Your task to perform on an android device: Open Yahoo.com Image 0: 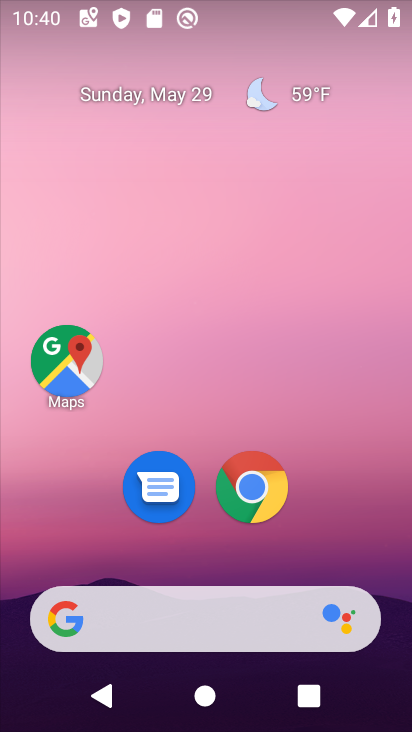
Step 0: click (245, 481)
Your task to perform on an android device: Open Yahoo.com Image 1: 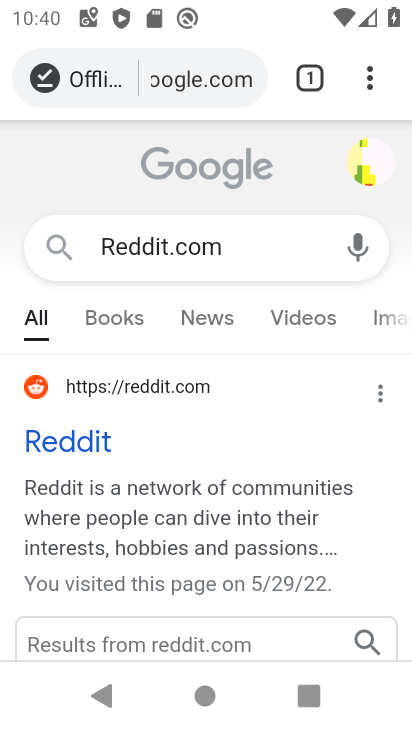
Step 1: click (256, 77)
Your task to perform on an android device: Open Yahoo.com Image 2: 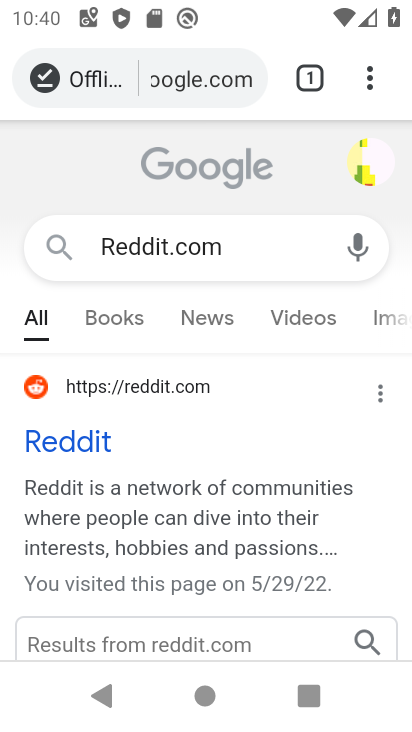
Step 2: click (252, 81)
Your task to perform on an android device: Open Yahoo.com Image 3: 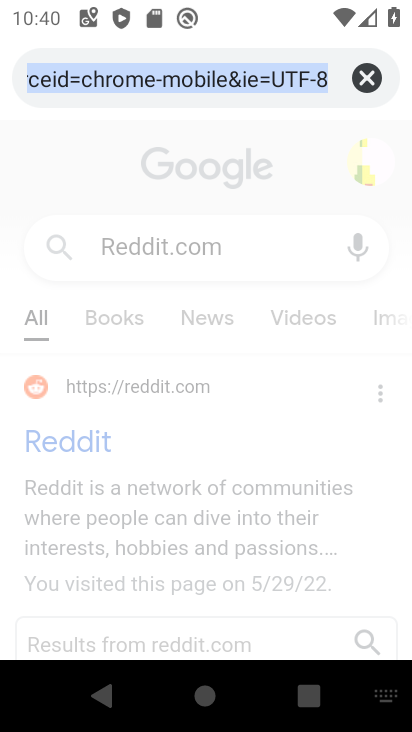
Step 3: click (308, 75)
Your task to perform on an android device: Open Yahoo.com Image 4: 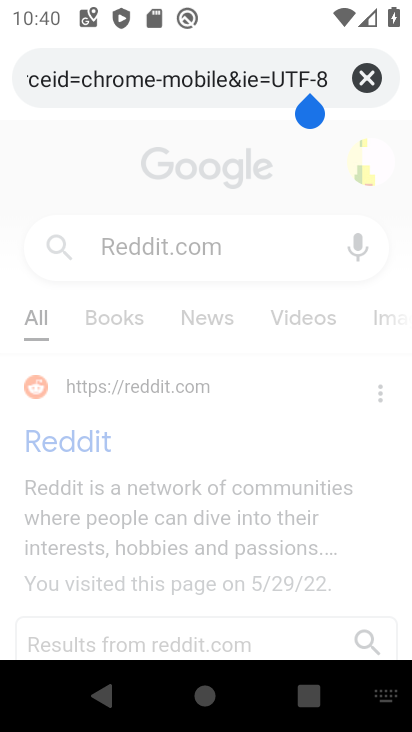
Step 4: click (371, 76)
Your task to perform on an android device: Open Yahoo.com Image 5: 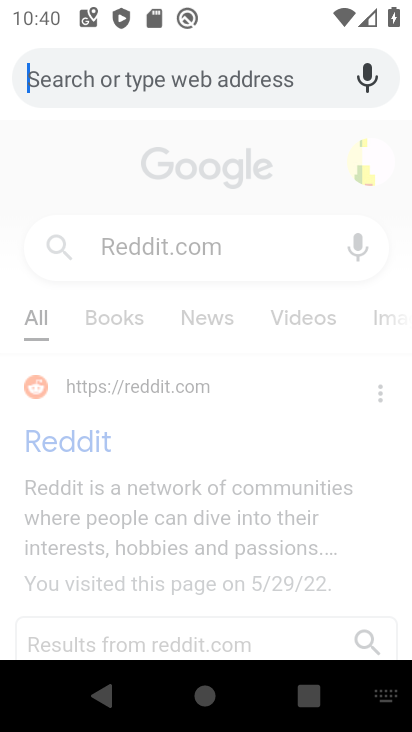
Step 5: type "Yahoo.com"
Your task to perform on an android device: Open Yahoo.com Image 6: 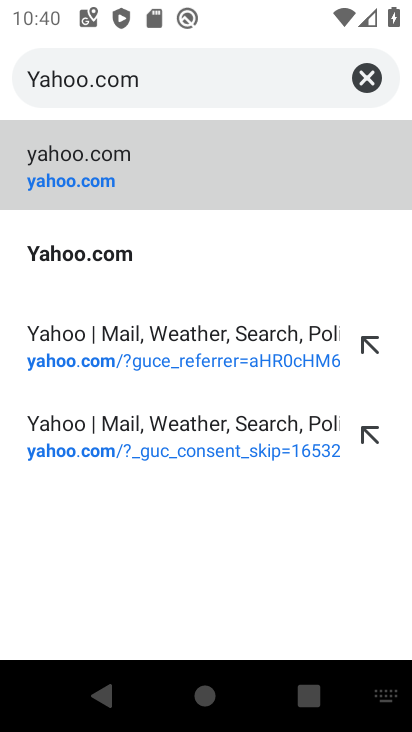
Step 6: click (81, 253)
Your task to perform on an android device: Open Yahoo.com Image 7: 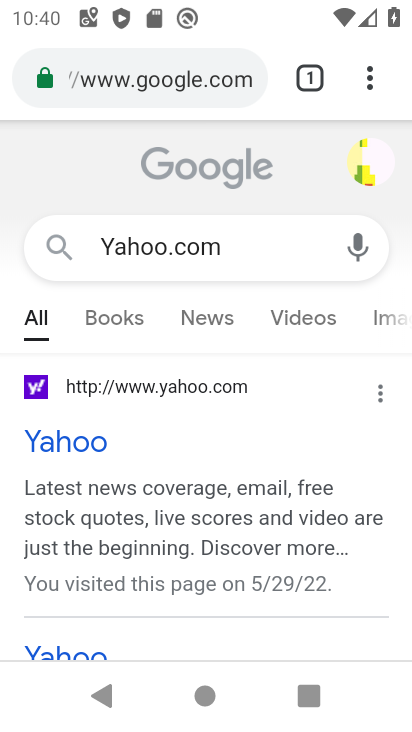
Step 7: task complete